Your task to perform on an android device: Go to privacy settings Image 0: 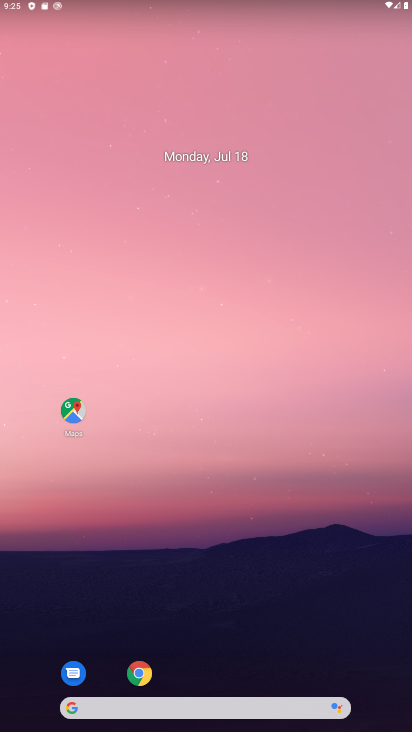
Step 0: drag from (225, 669) to (309, 126)
Your task to perform on an android device: Go to privacy settings Image 1: 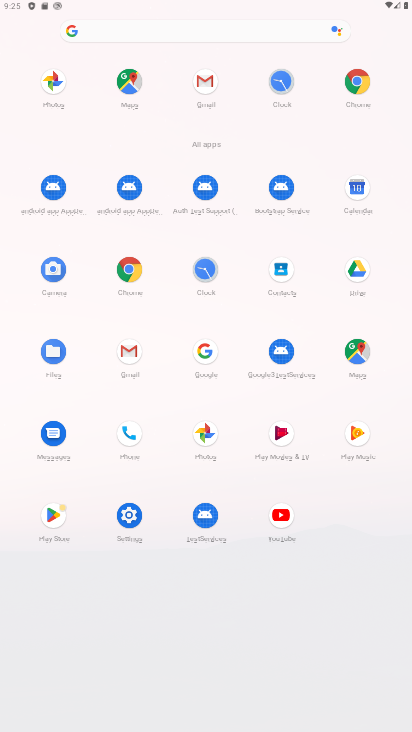
Step 1: click (134, 281)
Your task to perform on an android device: Go to privacy settings Image 2: 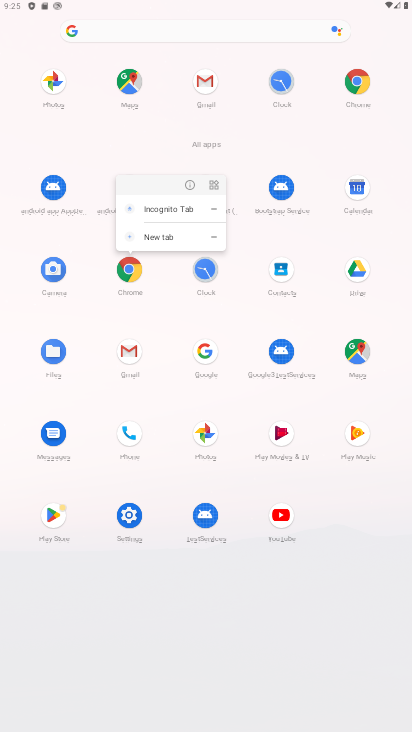
Step 2: click (136, 268)
Your task to perform on an android device: Go to privacy settings Image 3: 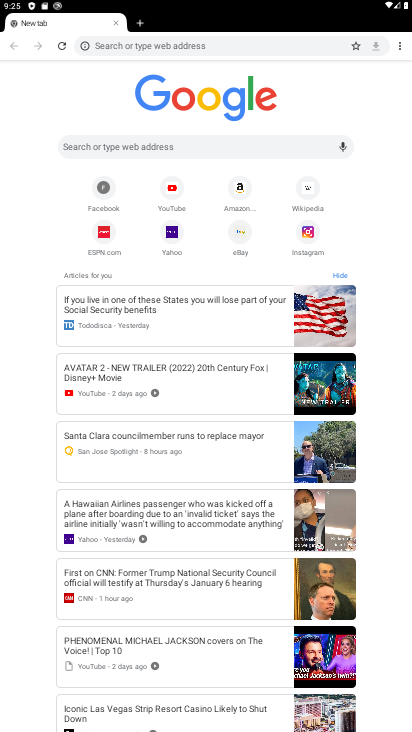
Step 3: drag from (399, 48) to (347, 211)
Your task to perform on an android device: Go to privacy settings Image 4: 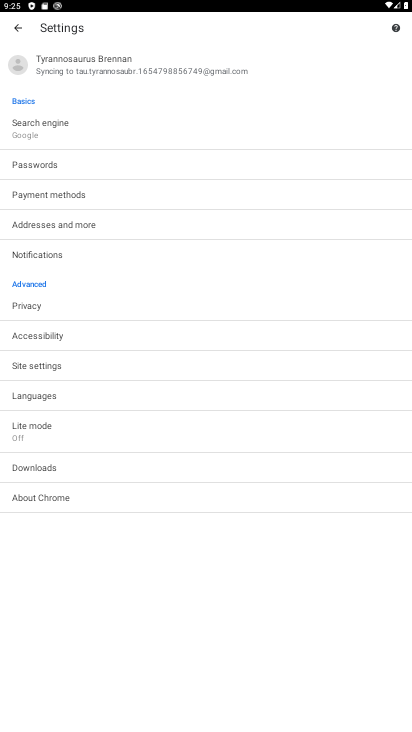
Step 4: click (91, 307)
Your task to perform on an android device: Go to privacy settings Image 5: 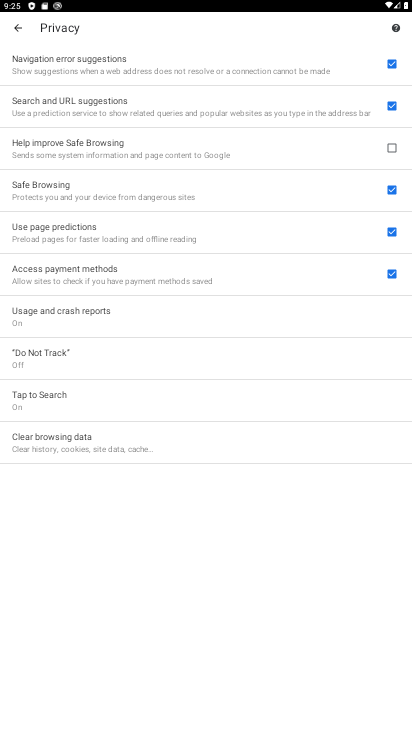
Step 5: task complete